Your task to perform on an android device: show emergency info Image 0: 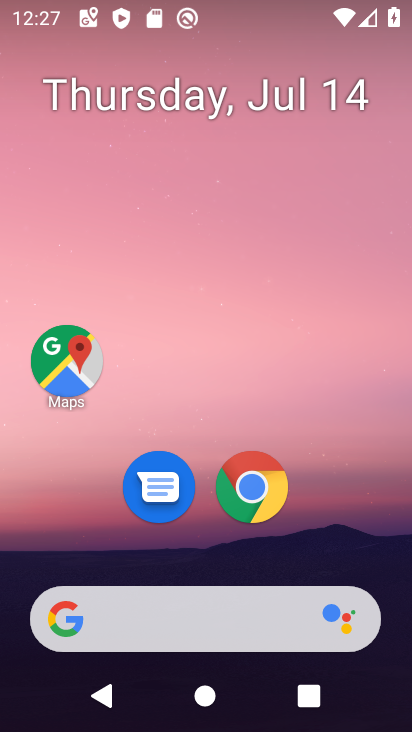
Step 0: drag from (214, 547) to (244, 84)
Your task to perform on an android device: show emergency info Image 1: 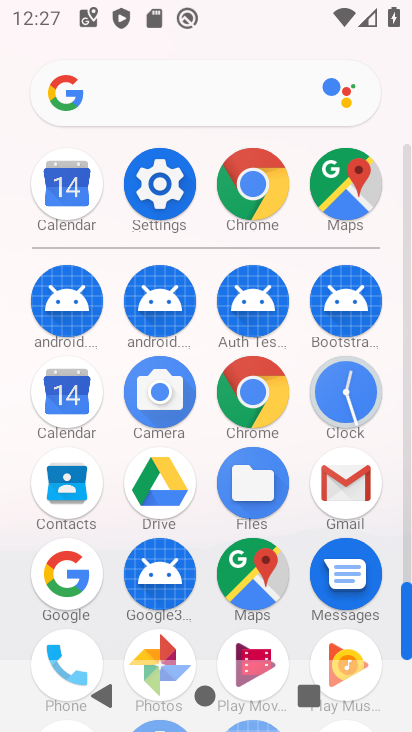
Step 1: drag from (228, 475) to (254, 190)
Your task to perform on an android device: show emergency info Image 2: 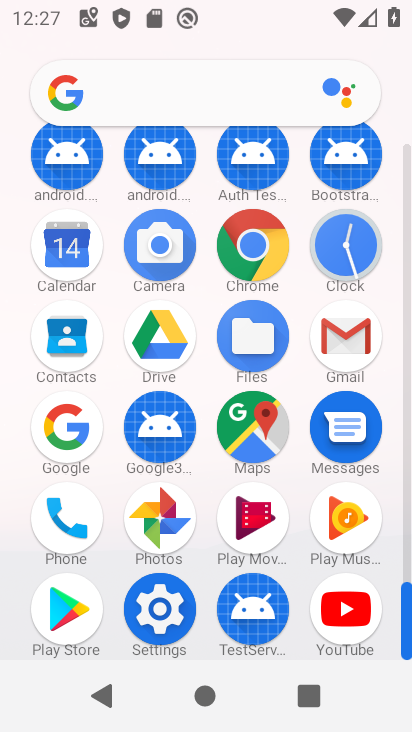
Step 2: click (168, 625)
Your task to perform on an android device: show emergency info Image 3: 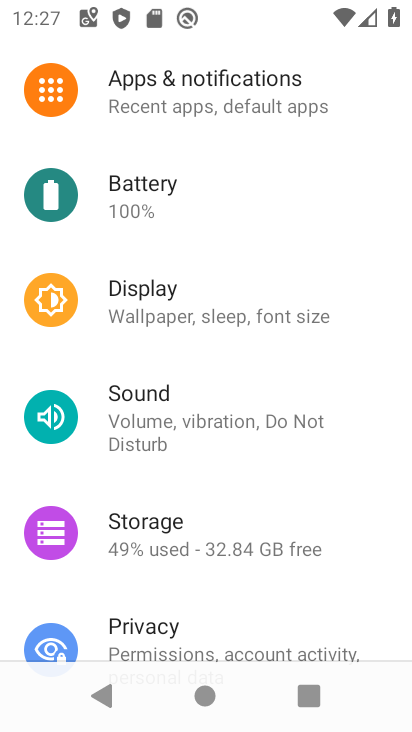
Step 3: drag from (251, 479) to (260, 223)
Your task to perform on an android device: show emergency info Image 4: 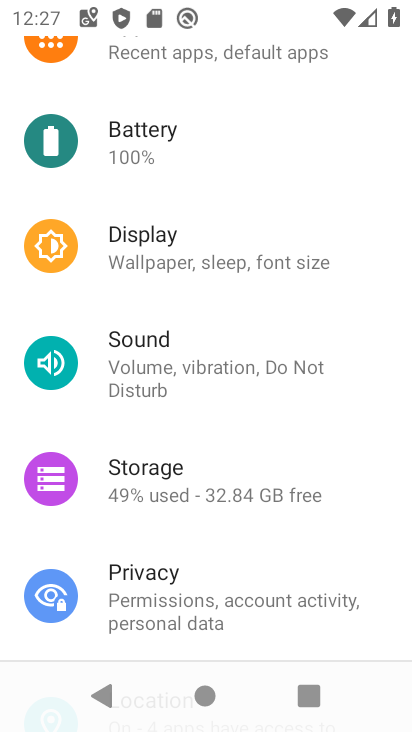
Step 4: drag from (256, 517) to (262, 264)
Your task to perform on an android device: show emergency info Image 5: 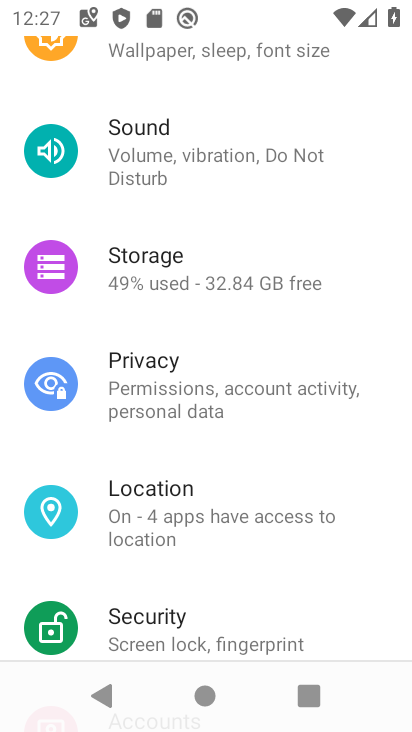
Step 5: drag from (219, 542) to (252, 350)
Your task to perform on an android device: show emergency info Image 6: 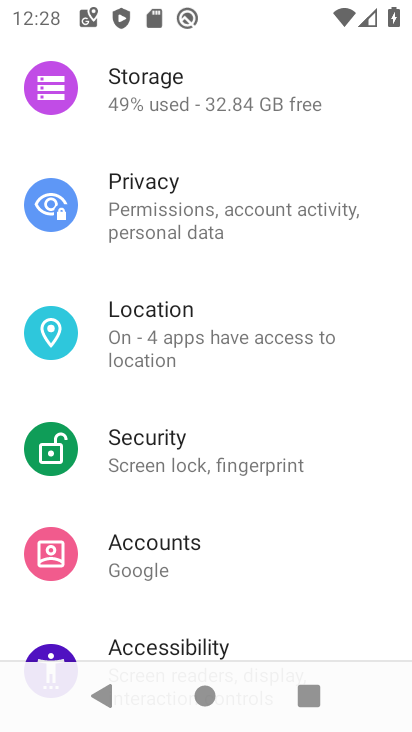
Step 6: drag from (237, 513) to (290, 162)
Your task to perform on an android device: show emergency info Image 7: 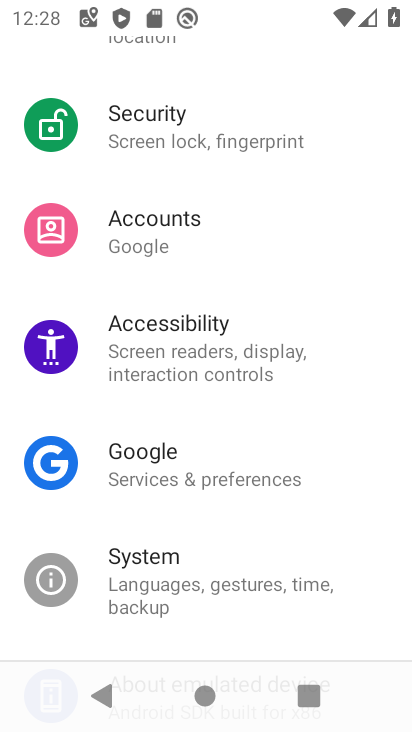
Step 7: drag from (245, 526) to (289, 194)
Your task to perform on an android device: show emergency info Image 8: 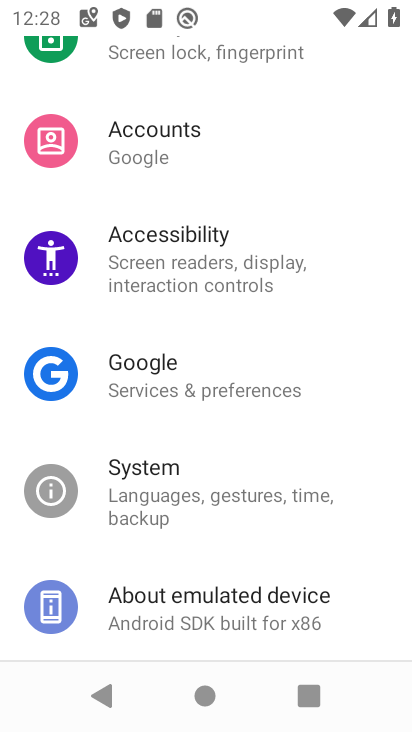
Step 8: click (215, 589)
Your task to perform on an android device: show emergency info Image 9: 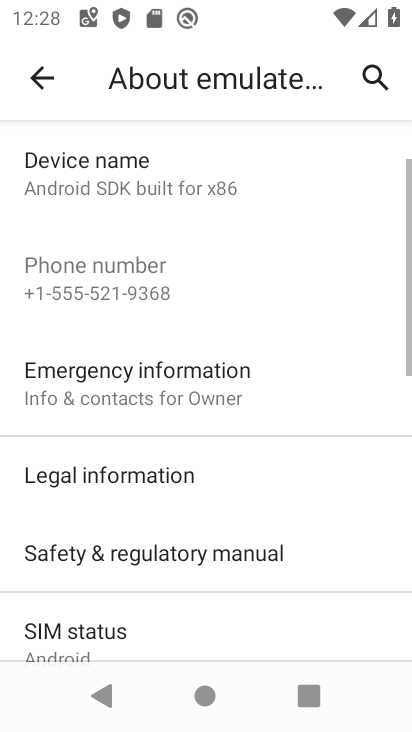
Step 9: click (191, 403)
Your task to perform on an android device: show emergency info Image 10: 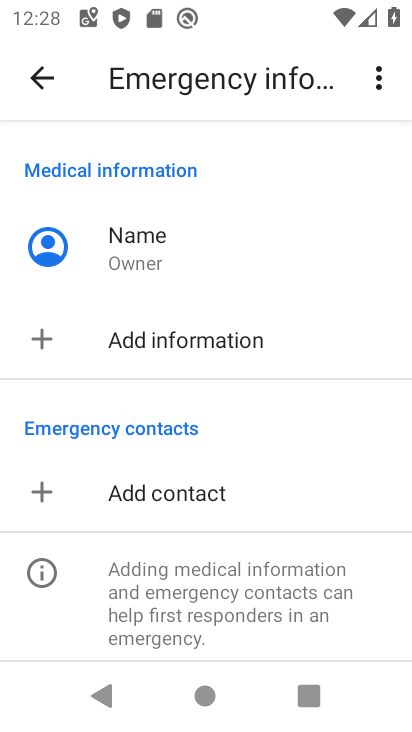
Step 10: task complete